Your task to perform on an android device: change keyboard looks Image 0: 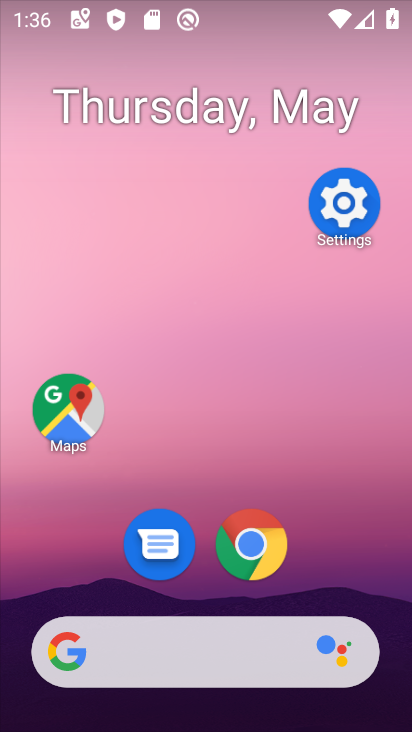
Step 0: click (356, 199)
Your task to perform on an android device: change keyboard looks Image 1: 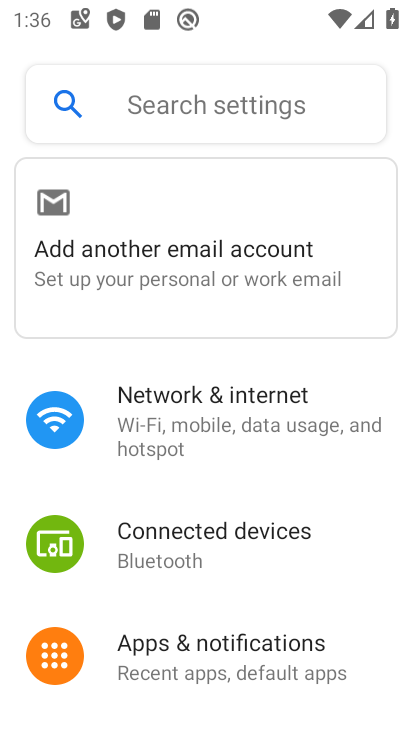
Step 1: drag from (262, 595) to (259, 226)
Your task to perform on an android device: change keyboard looks Image 2: 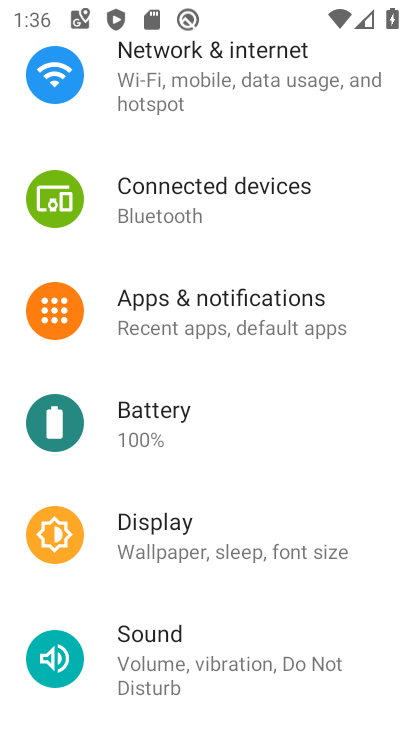
Step 2: drag from (157, 498) to (182, 223)
Your task to perform on an android device: change keyboard looks Image 3: 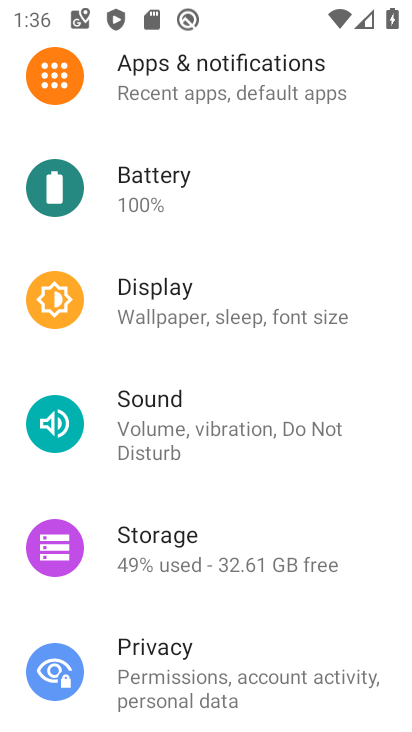
Step 3: drag from (197, 675) to (224, 205)
Your task to perform on an android device: change keyboard looks Image 4: 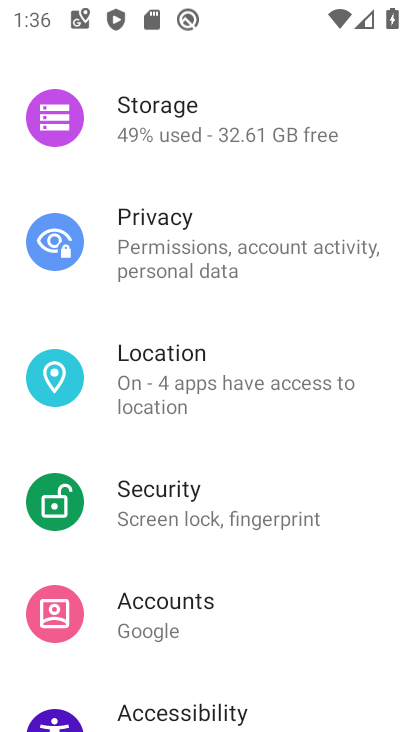
Step 4: drag from (194, 644) to (232, 286)
Your task to perform on an android device: change keyboard looks Image 5: 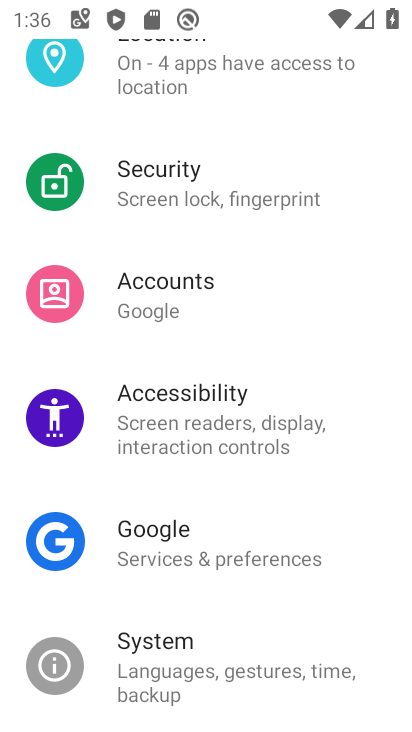
Step 5: drag from (219, 619) to (257, 300)
Your task to perform on an android device: change keyboard looks Image 6: 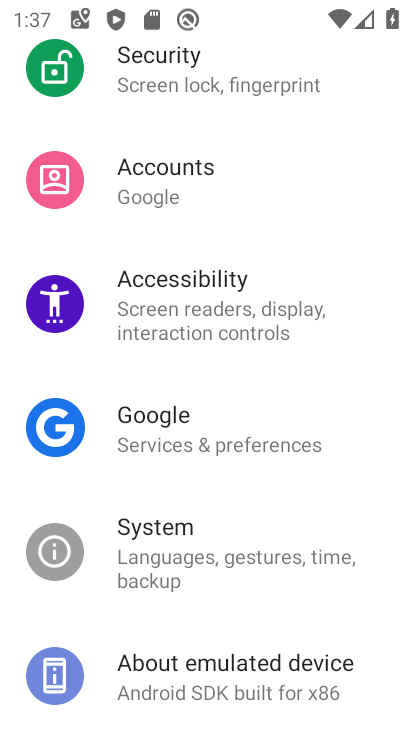
Step 6: click (206, 559)
Your task to perform on an android device: change keyboard looks Image 7: 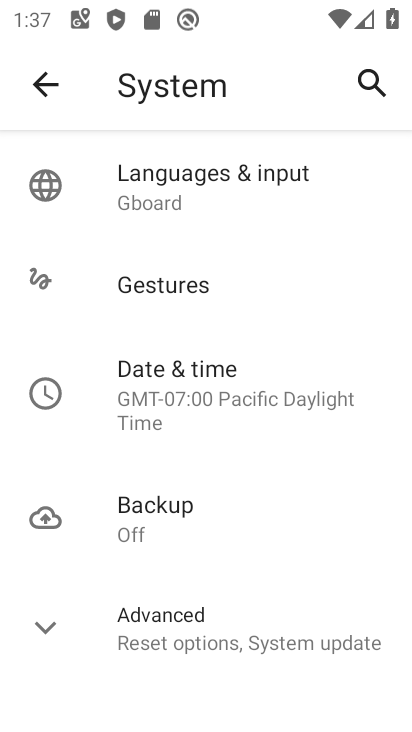
Step 7: click (227, 206)
Your task to perform on an android device: change keyboard looks Image 8: 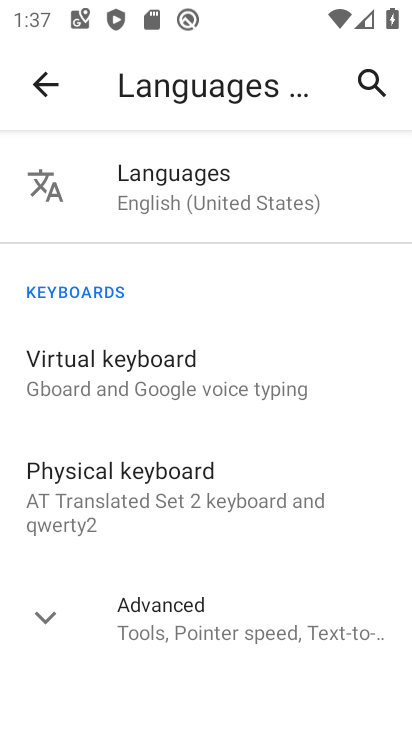
Step 8: click (153, 400)
Your task to perform on an android device: change keyboard looks Image 9: 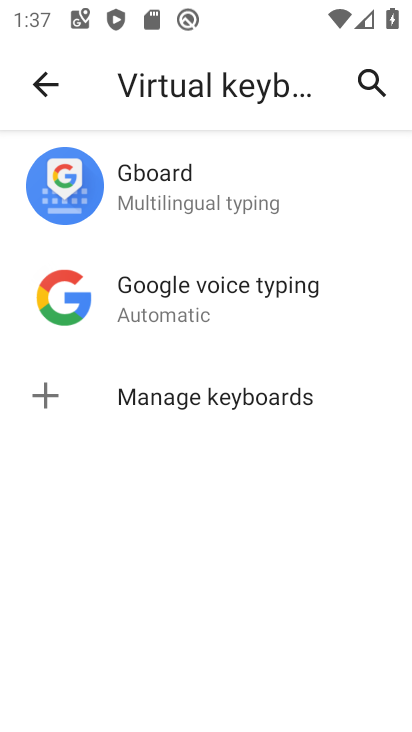
Step 9: click (181, 202)
Your task to perform on an android device: change keyboard looks Image 10: 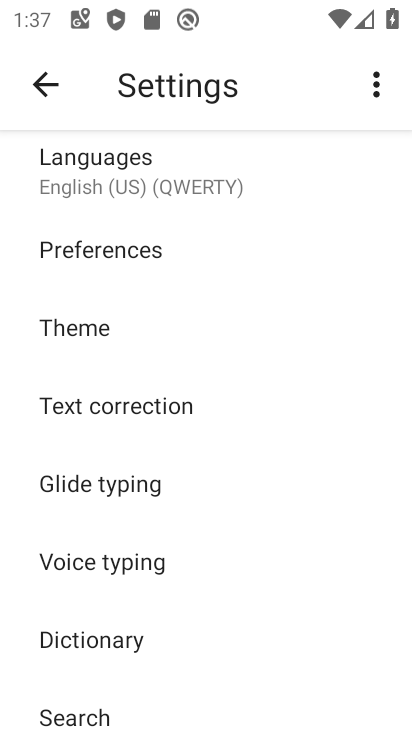
Step 10: click (73, 334)
Your task to perform on an android device: change keyboard looks Image 11: 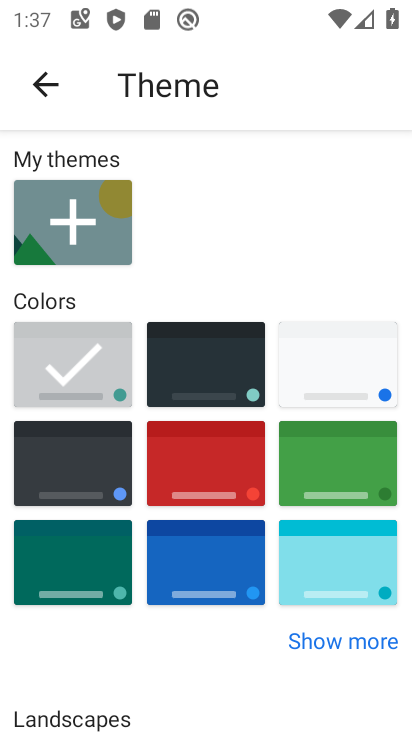
Step 11: click (205, 385)
Your task to perform on an android device: change keyboard looks Image 12: 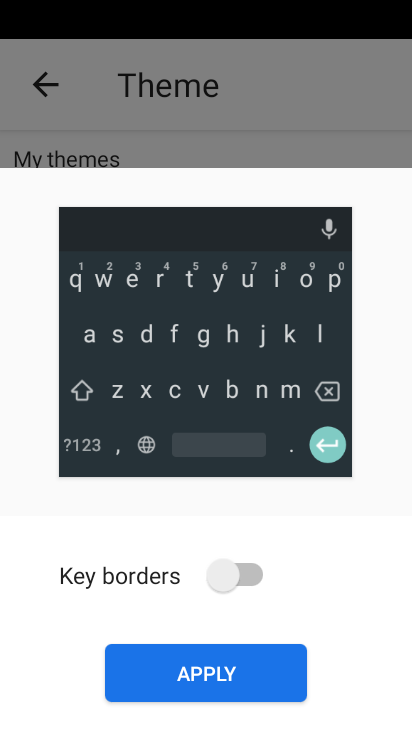
Step 12: click (249, 687)
Your task to perform on an android device: change keyboard looks Image 13: 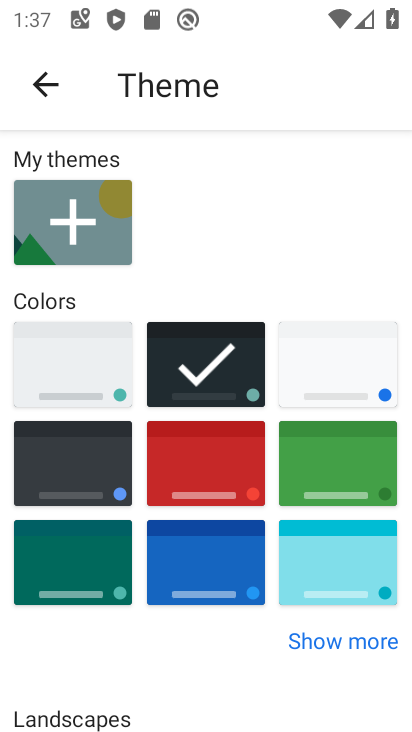
Step 13: task complete